Your task to perform on an android device: Open CNN.com Image 0: 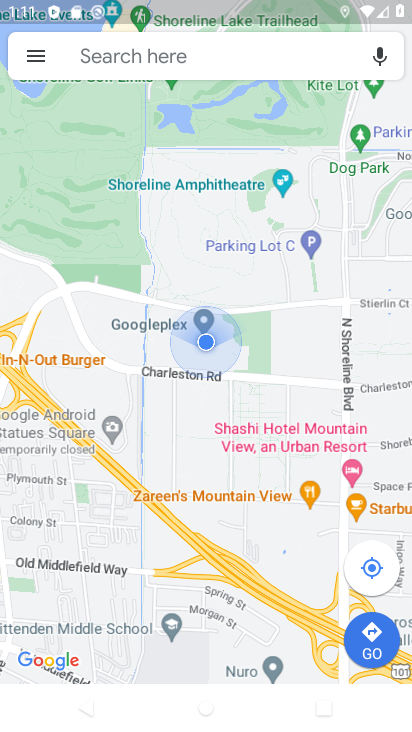
Step 0: press home button
Your task to perform on an android device: Open CNN.com Image 1: 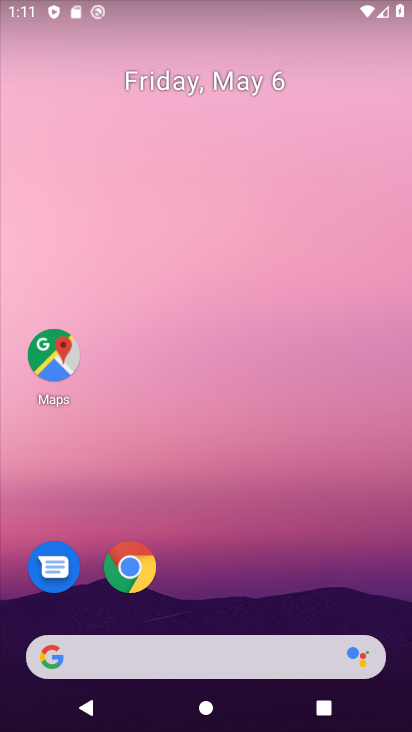
Step 1: click (142, 585)
Your task to perform on an android device: Open CNN.com Image 2: 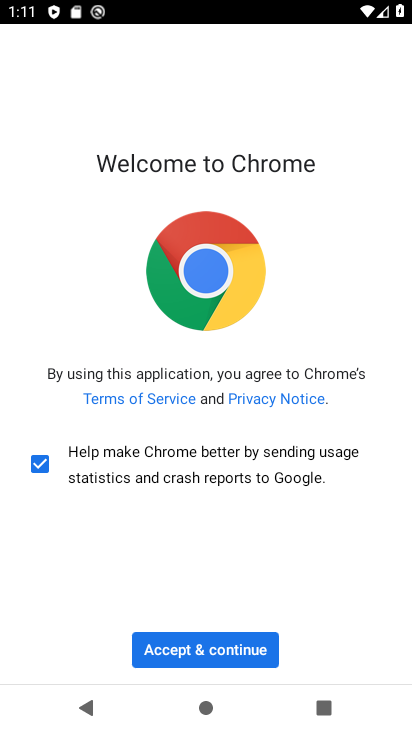
Step 2: click (190, 664)
Your task to perform on an android device: Open CNN.com Image 3: 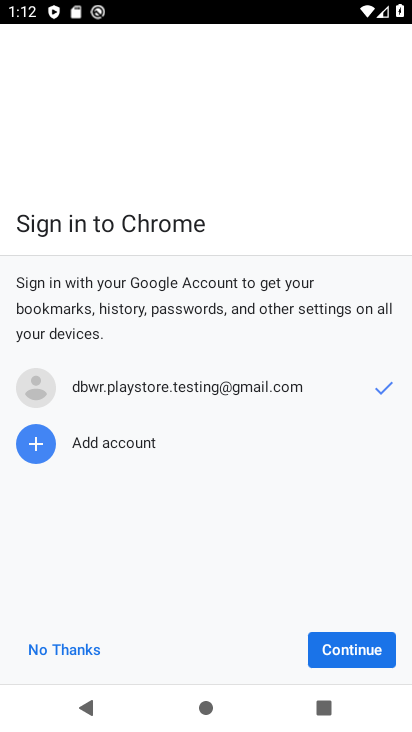
Step 3: click (319, 657)
Your task to perform on an android device: Open CNN.com Image 4: 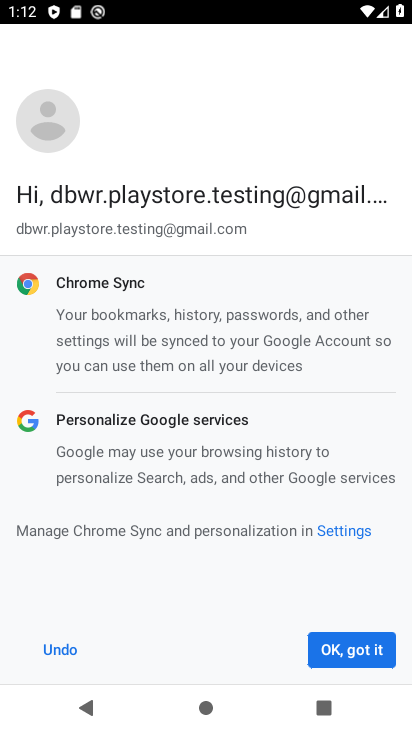
Step 4: click (334, 656)
Your task to perform on an android device: Open CNN.com Image 5: 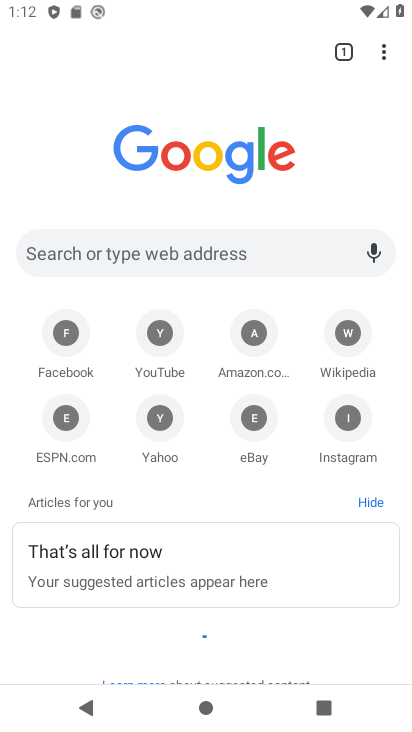
Step 5: click (190, 257)
Your task to perform on an android device: Open CNN.com Image 6: 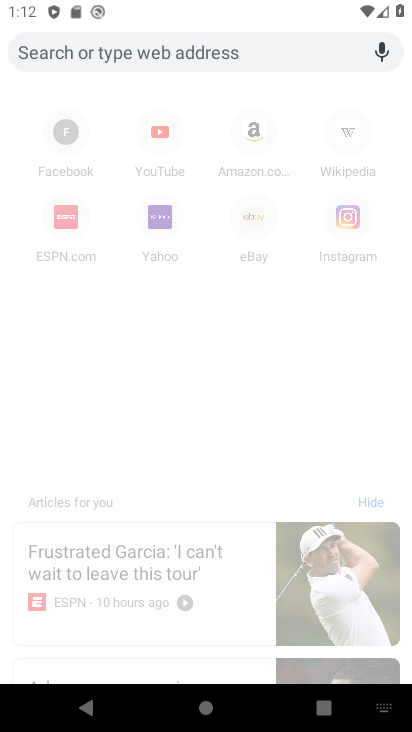
Step 6: type "cnn.com"
Your task to perform on an android device: Open CNN.com Image 7: 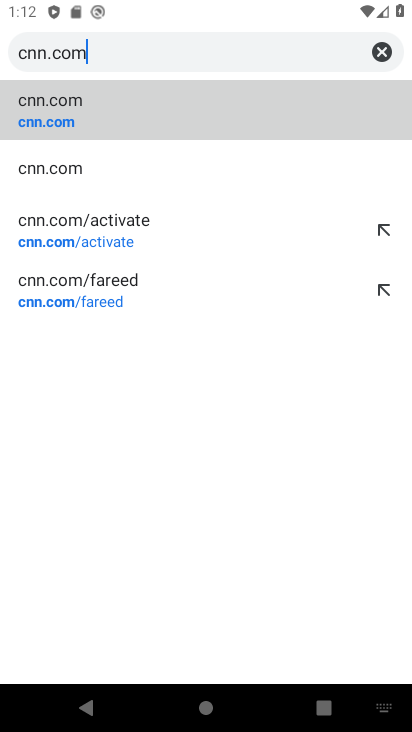
Step 7: click (193, 119)
Your task to perform on an android device: Open CNN.com Image 8: 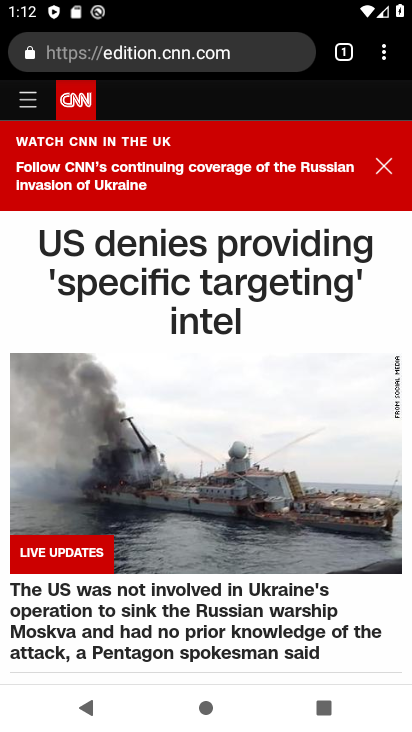
Step 8: task complete